Your task to perform on an android device: See recent photos Image 0: 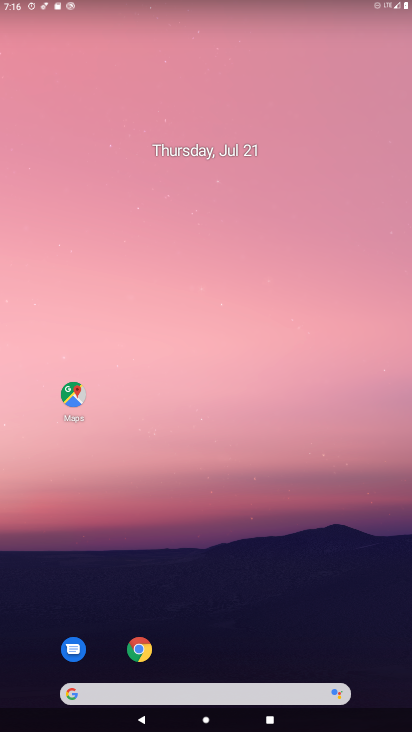
Step 0: drag from (369, 632) to (199, 1)
Your task to perform on an android device: See recent photos Image 1: 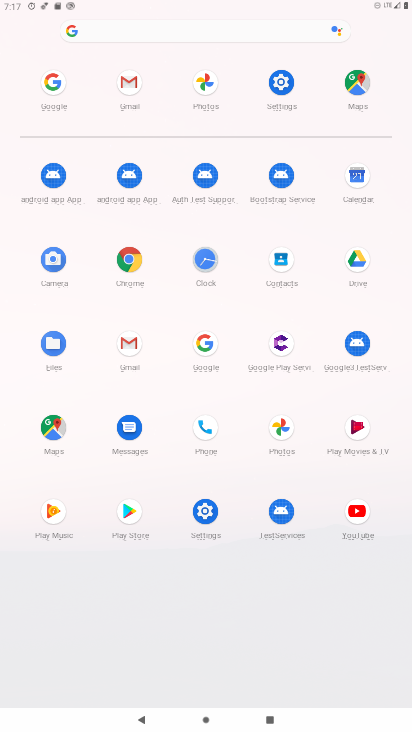
Step 1: click (289, 441)
Your task to perform on an android device: See recent photos Image 2: 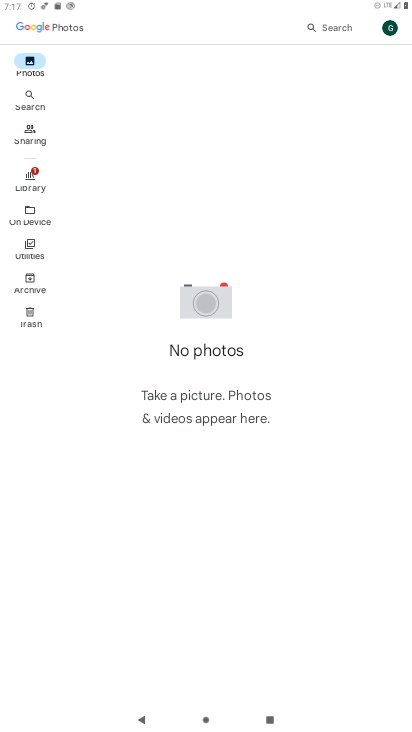
Step 2: task complete